Your task to perform on an android device: Show me productivity apps on the Play Store Image 0: 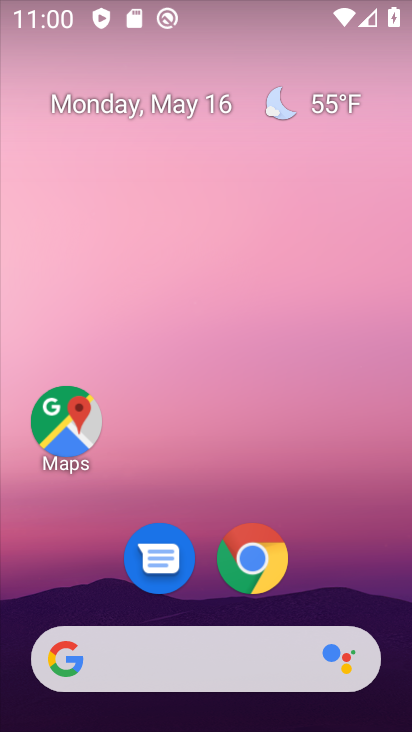
Step 0: drag from (348, 525) to (330, 114)
Your task to perform on an android device: Show me productivity apps on the Play Store Image 1: 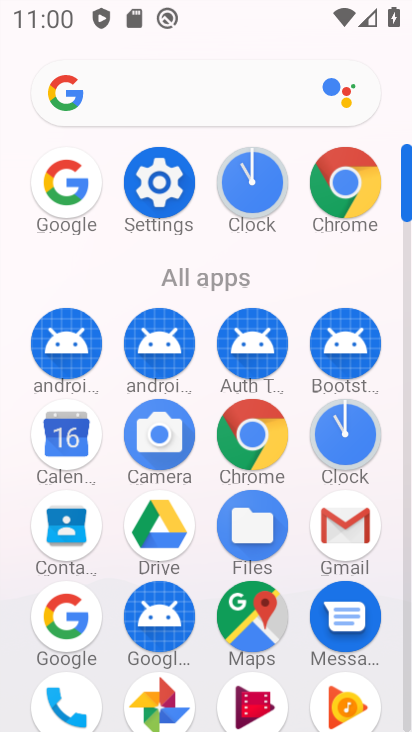
Step 1: drag from (206, 561) to (217, 261)
Your task to perform on an android device: Show me productivity apps on the Play Store Image 2: 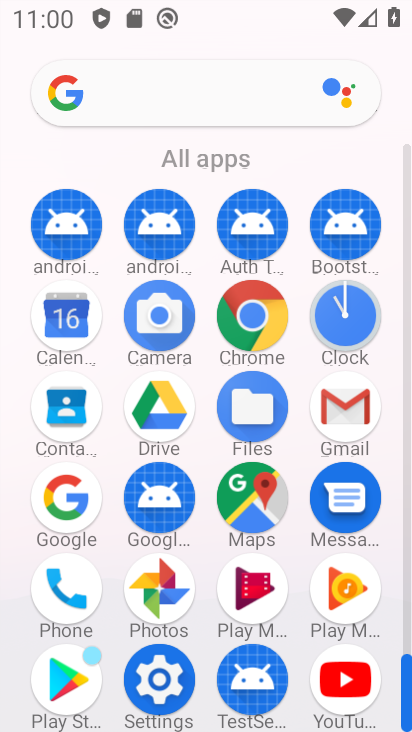
Step 2: click (71, 677)
Your task to perform on an android device: Show me productivity apps on the Play Store Image 3: 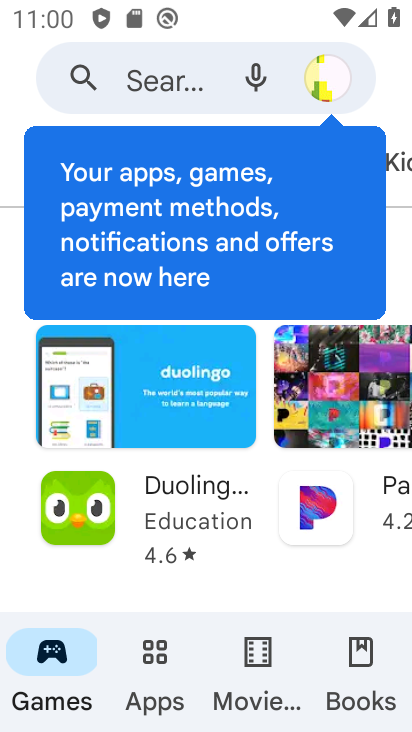
Step 3: click (162, 679)
Your task to perform on an android device: Show me productivity apps on the Play Store Image 4: 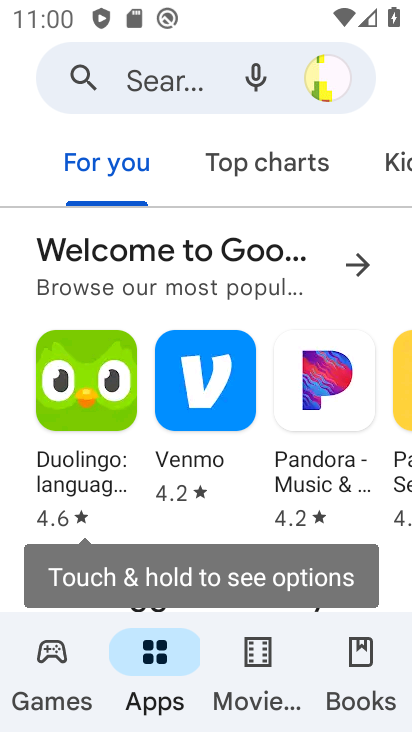
Step 4: drag from (375, 166) to (6, 193)
Your task to perform on an android device: Show me productivity apps on the Play Store Image 5: 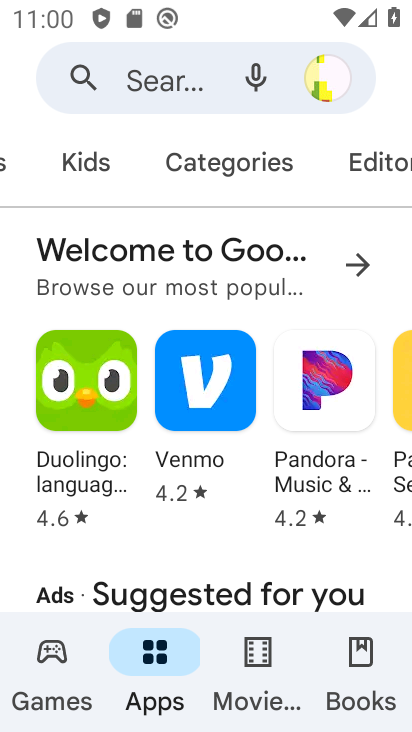
Step 5: click (159, 157)
Your task to perform on an android device: Show me productivity apps on the Play Store Image 6: 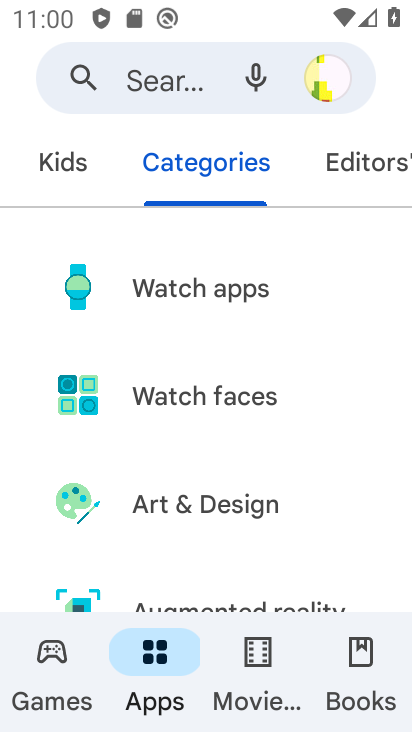
Step 6: drag from (295, 535) to (294, 11)
Your task to perform on an android device: Show me productivity apps on the Play Store Image 7: 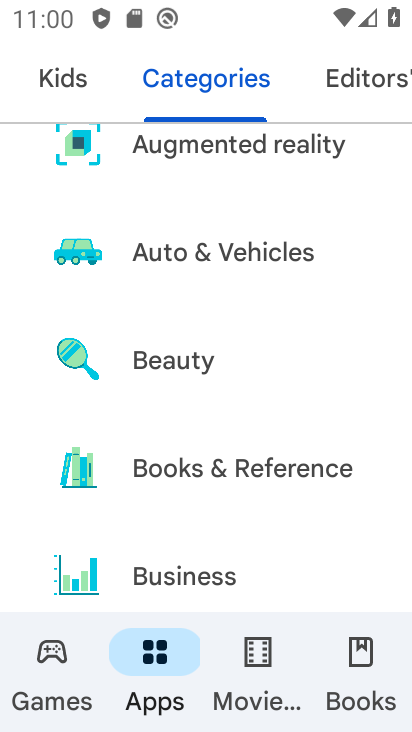
Step 7: drag from (262, 495) to (247, 111)
Your task to perform on an android device: Show me productivity apps on the Play Store Image 8: 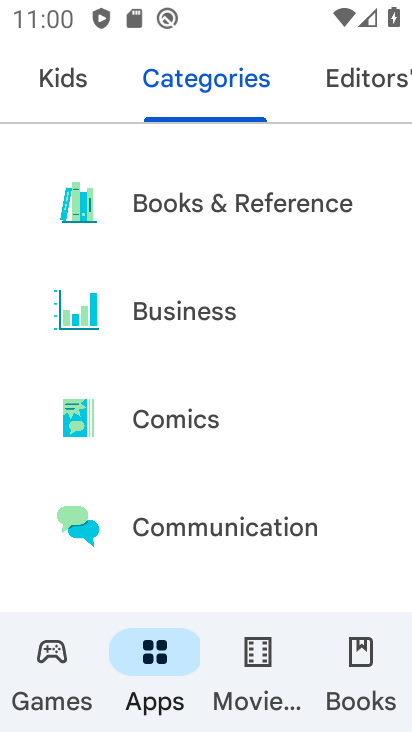
Step 8: drag from (249, 516) to (237, 40)
Your task to perform on an android device: Show me productivity apps on the Play Store Image 9: 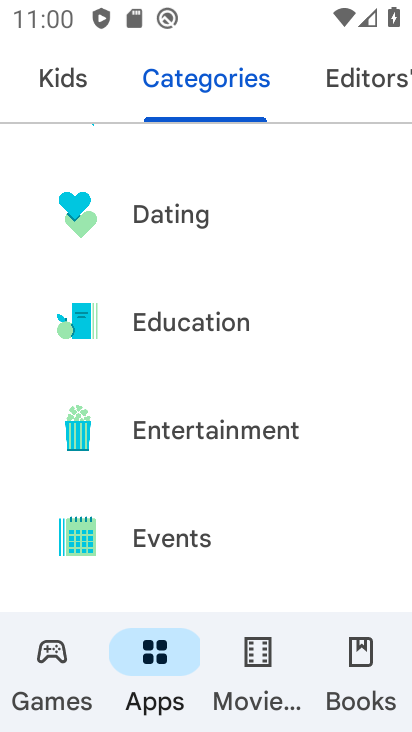
Step 9: drag from (276, 588) to (270, 133)
Your task to perform on an android device: Show me productivity apps on the Play Store Image 10: 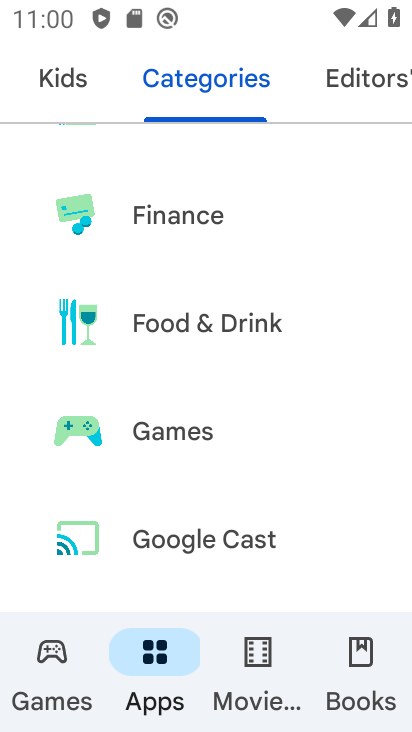
Step 10: drag from (253, 553) to (223, 164)
Your task to perform on an android device: Show me productivity apps on the Play Store Image 11: 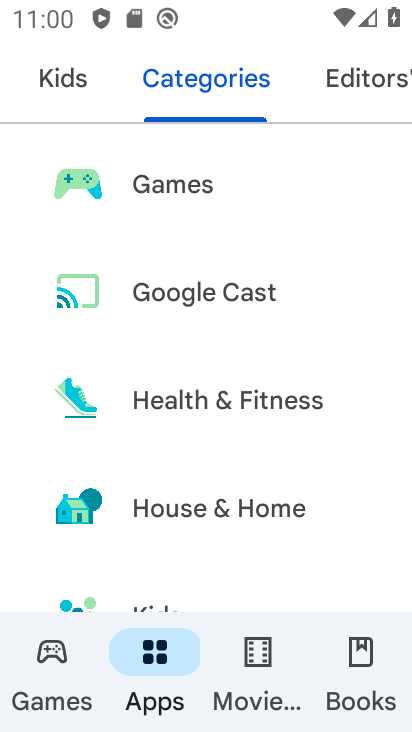
Step 11: drag from (218, 553) to (193, 141)
Your task to perform on an android device: Show me productivity apps on the Play Store Image 12: 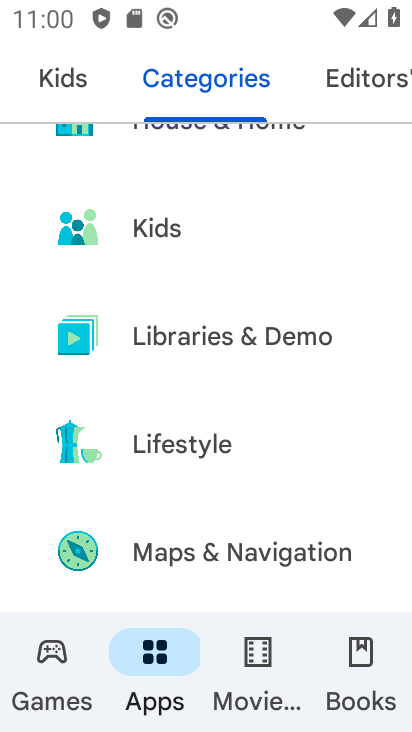
Step 12: drag from (207, 555) to (176, 233)
Your task to perform on an android device: Show me productivity apps on the Play Store Image 13: 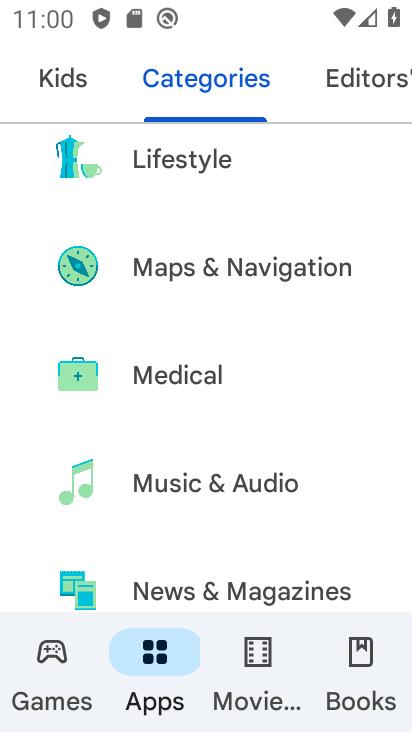
Step 13: drag from (219, 541) to (214, 151)
Your task to perform on an android device: Show me productivity apps on the Play Store Image 14: 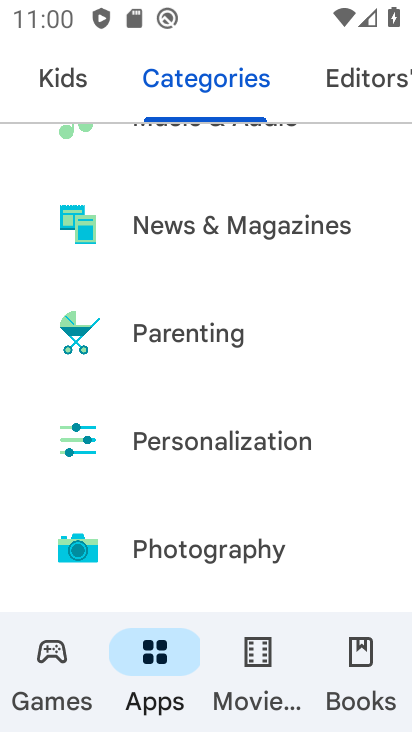
Step 14: drag from (234, 511) to (213, 206)
Your task to perform on an android device: Show me productivity apps on the Play Store Image 15: 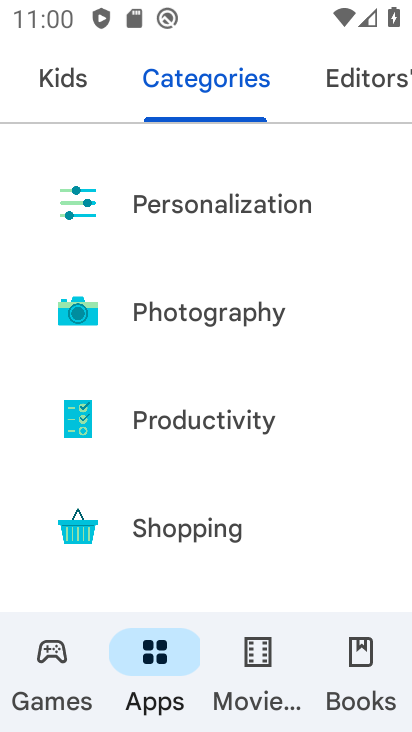
Step 15: click (261, 413)
Your task to perform on an android device: Show me productivity apps on the Play Store Image 16: 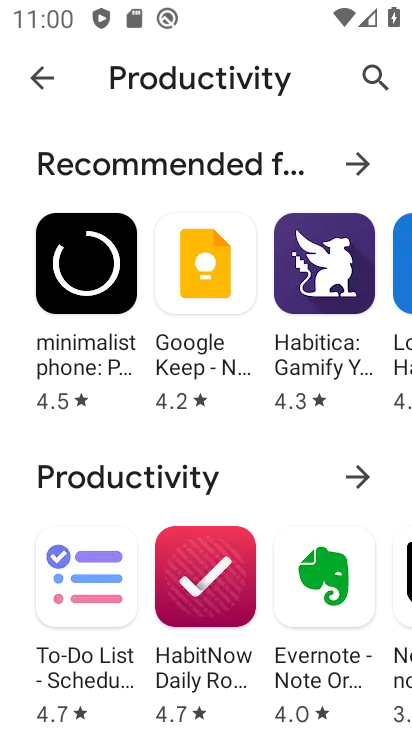
Step 16: drag from (272, 573) to (274, 456)
Your task to perform on an android device: Show me productivity apps on the Play Store Image 17: 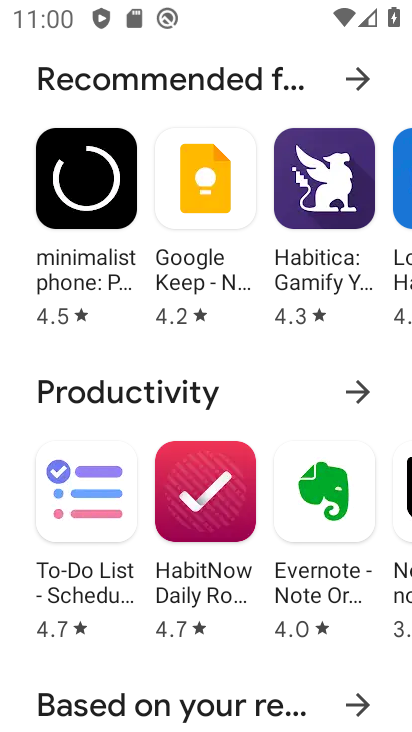
Step 17: click (349, 386)
Your task to perform on an android device: Show me productivity apps on the Play Store Image 18: 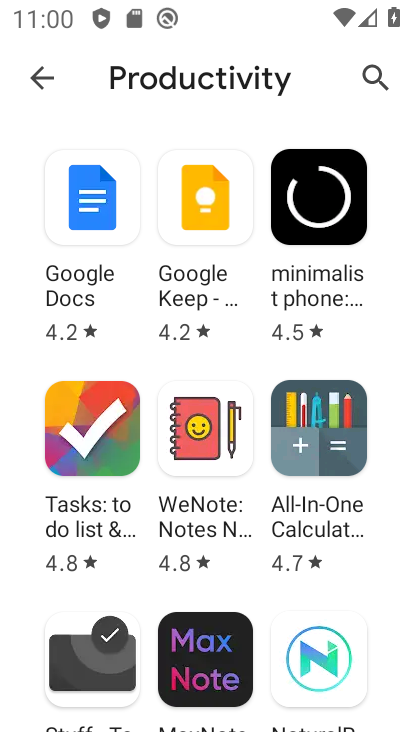
Step 18: task complete